Your task to perform on an android device: check battery use Image 0: 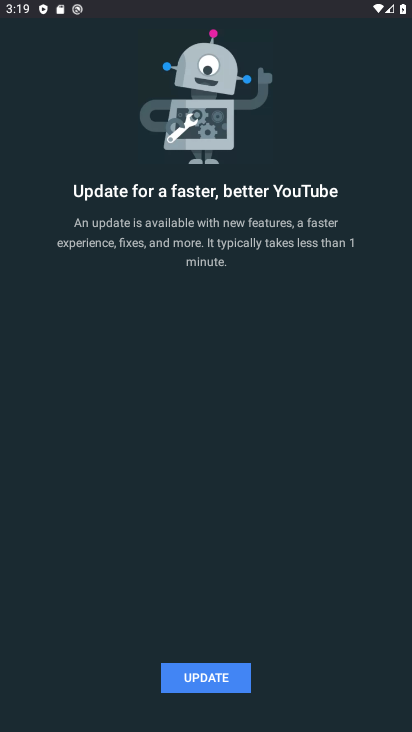
Step 0: press home button
Your task to perform on an android device: check battery use Image 1: 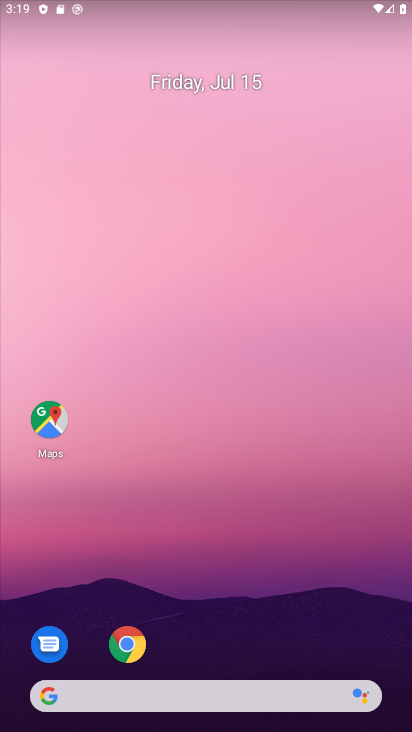
Step 1: drag from (290, 655) to (231, 0)
Your task to perform on an android device: check battery use Image 2: 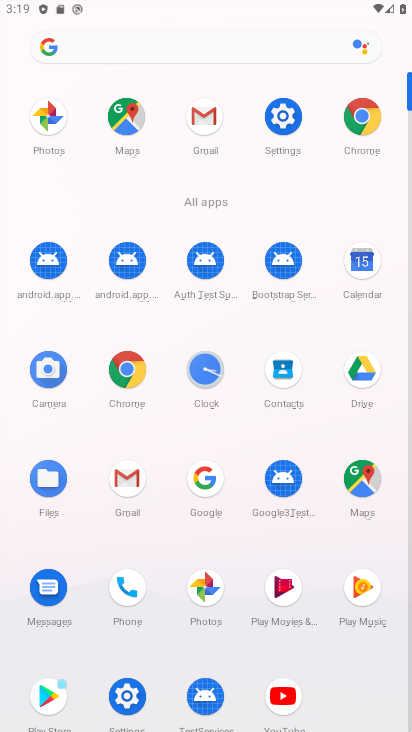
Step 2: click (283, 105)
Your task to perform on an android device: check battery use Image 3: 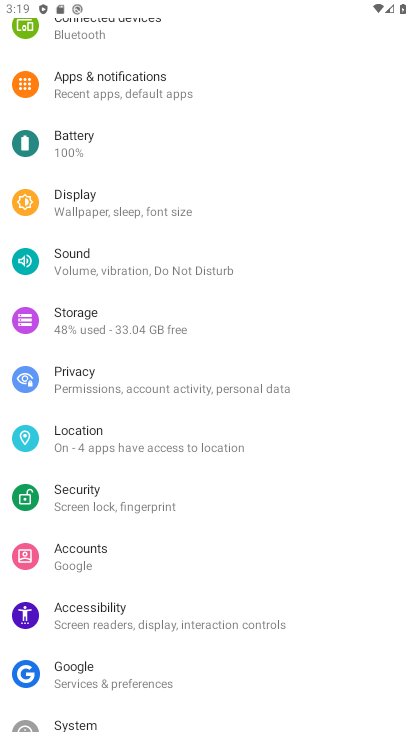
Step 3: click (137, 140)
Your task to perform on an android device: check battery use Image 4: 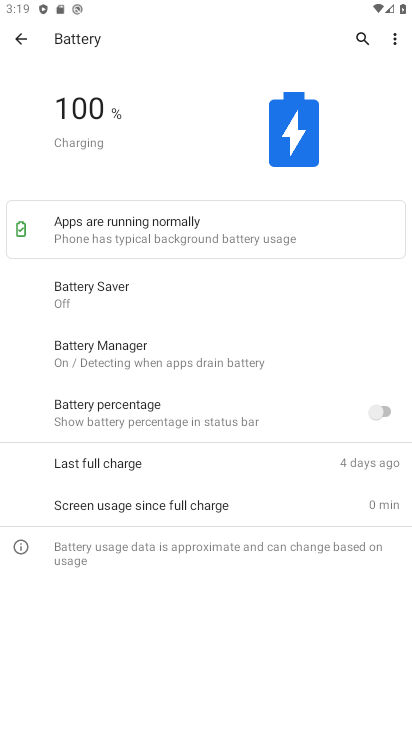
Step 4: click (396, 37)
Your task to perform on an android device: check battery use Image 5: 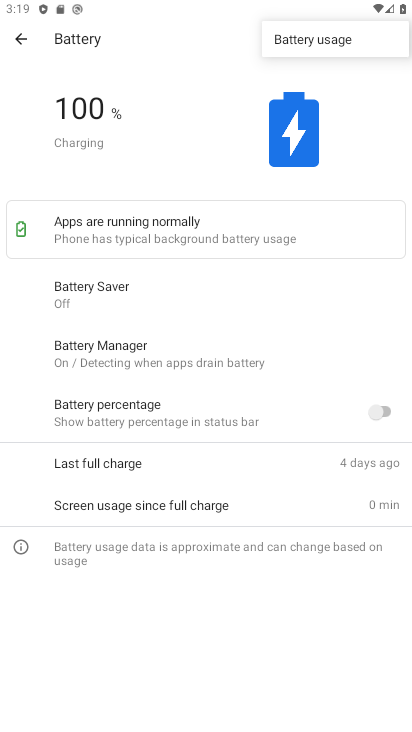
Step 5: click (318, 41)
Your task to perform on an android device: check battery use Image 6: 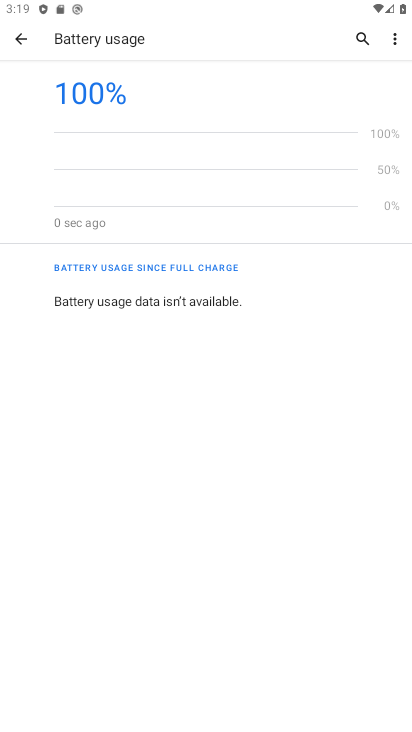
Step 6: task complete